Your task to perform on an android device: open chrome privacy settings Image 0: 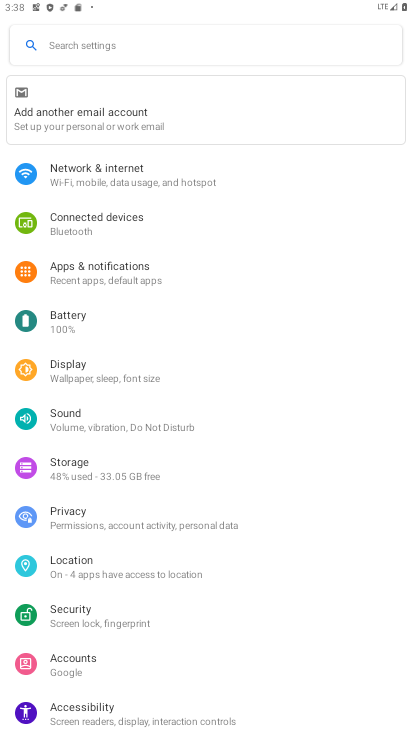
Step 0: press home button
Your task to perform on an android device: open chrome privacy settings Image 1: 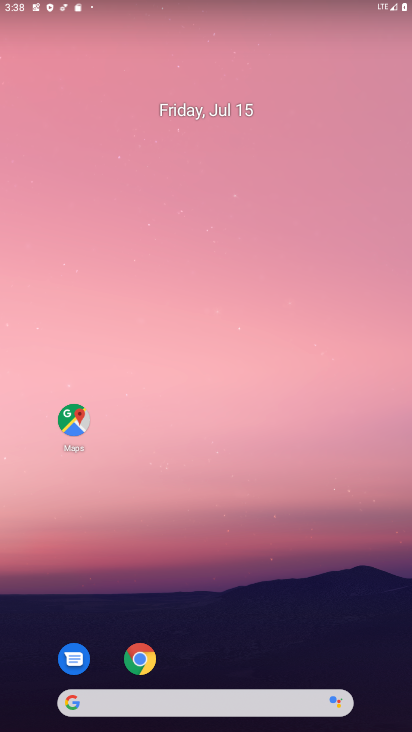
Step 1: click (140, 658)
Your task to perform on an android device: open chrome privacy settings Image 2: 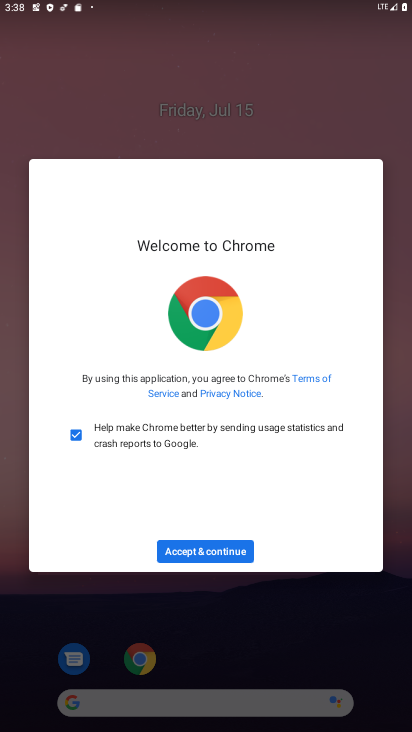
Step 2: click (183, 558)
Your task to perform on an android device: open chrome privacy settings Image 3: 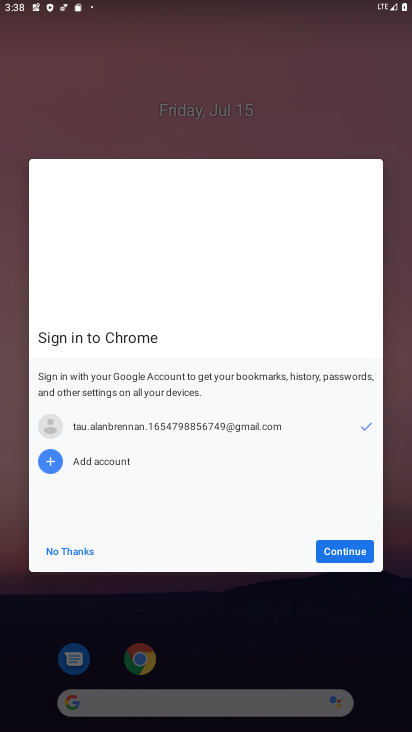
Step 3: click (366, 556)
Your task to perform on an android device: open chrome privacy settings Image 4: 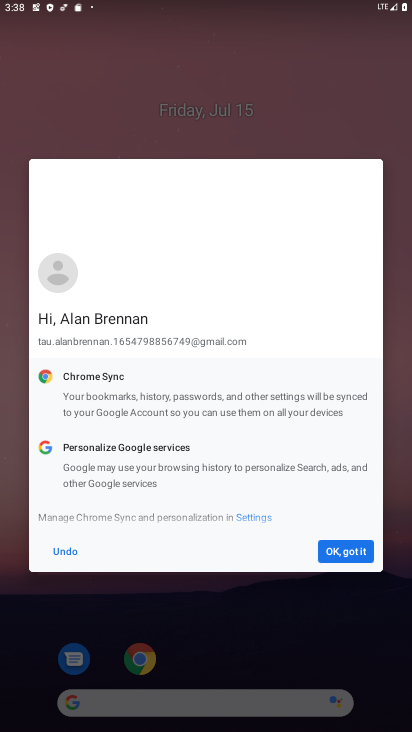
Step 4: click (366, 556)
Your task to perform on an android device: open chrome privacy settings Image 5: 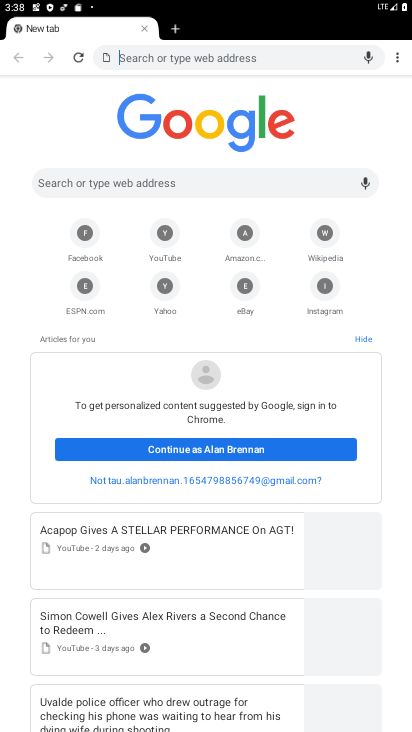
Step 5: click (402, 62)
Your task to perform on an android device: open chrome privacy settings Image 6: 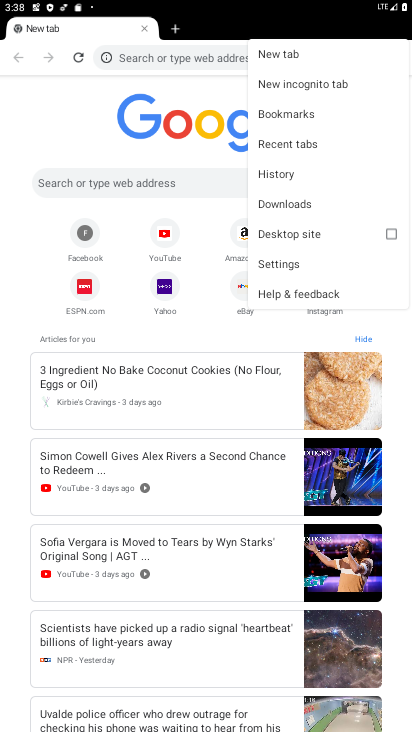
Step 6: click (293, 265)
Your task to perform on an android device: open chrome privacy settings Image 7: 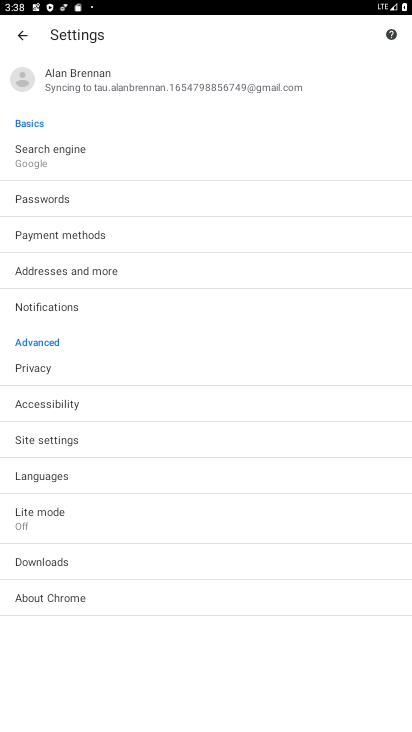
Step 7: click (43, 364)
Your task to perform on an android device: open chrome privacy settings Image 8: 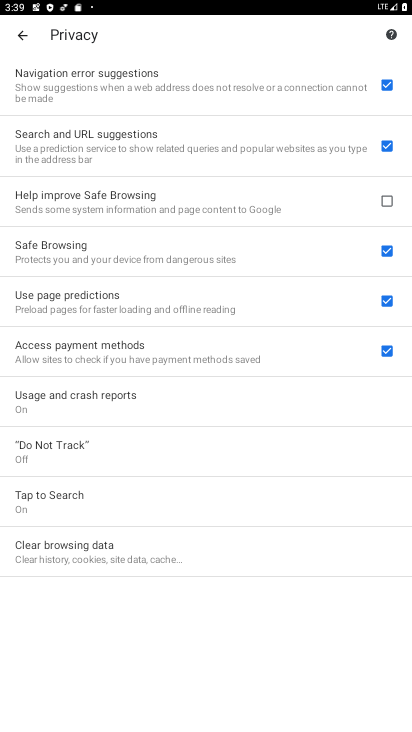
Step 8: task complete